Your task to perform on an android device: Search for Mexican restaurants on Maps Image 0: 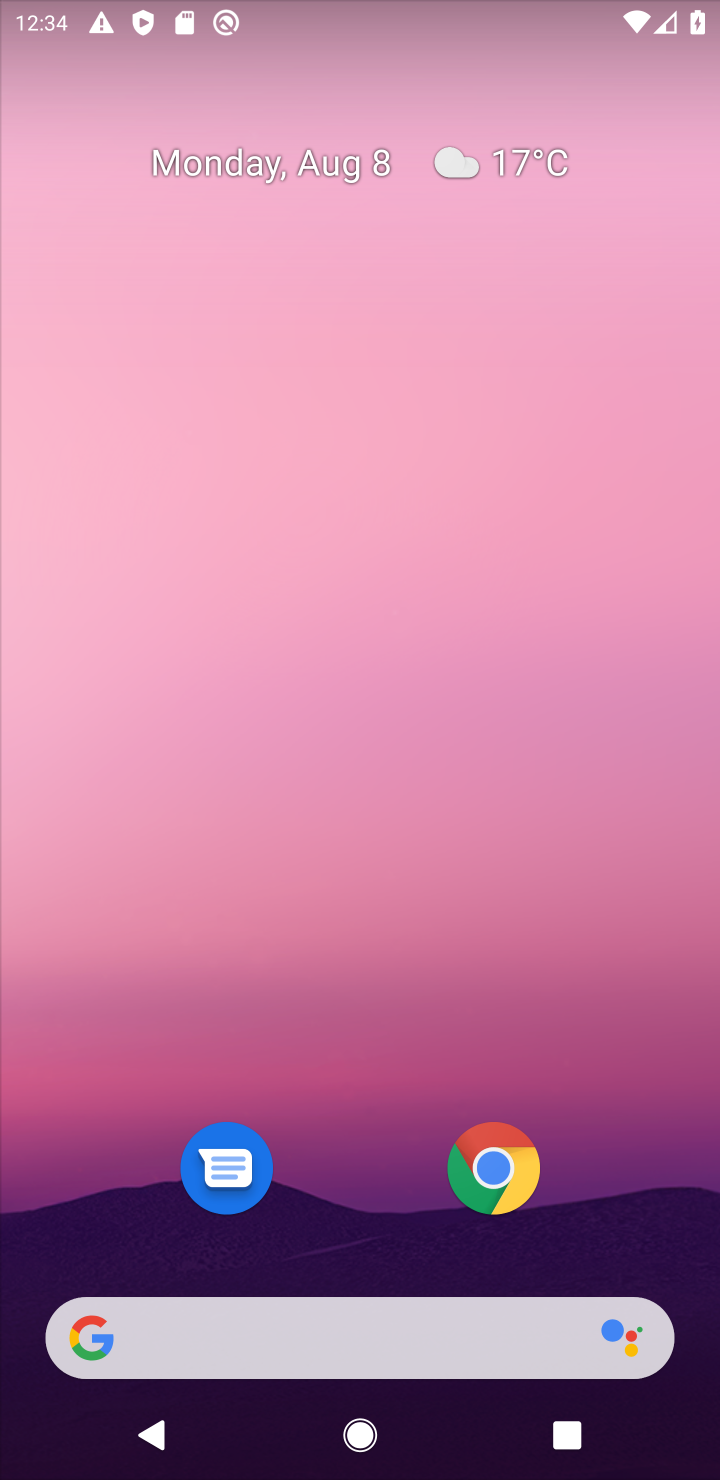
Step 0: drag from (53, 1441) to (503, 274)
Your task to perform on an android device: Search for Mexican restaurants on Maps Image 1: 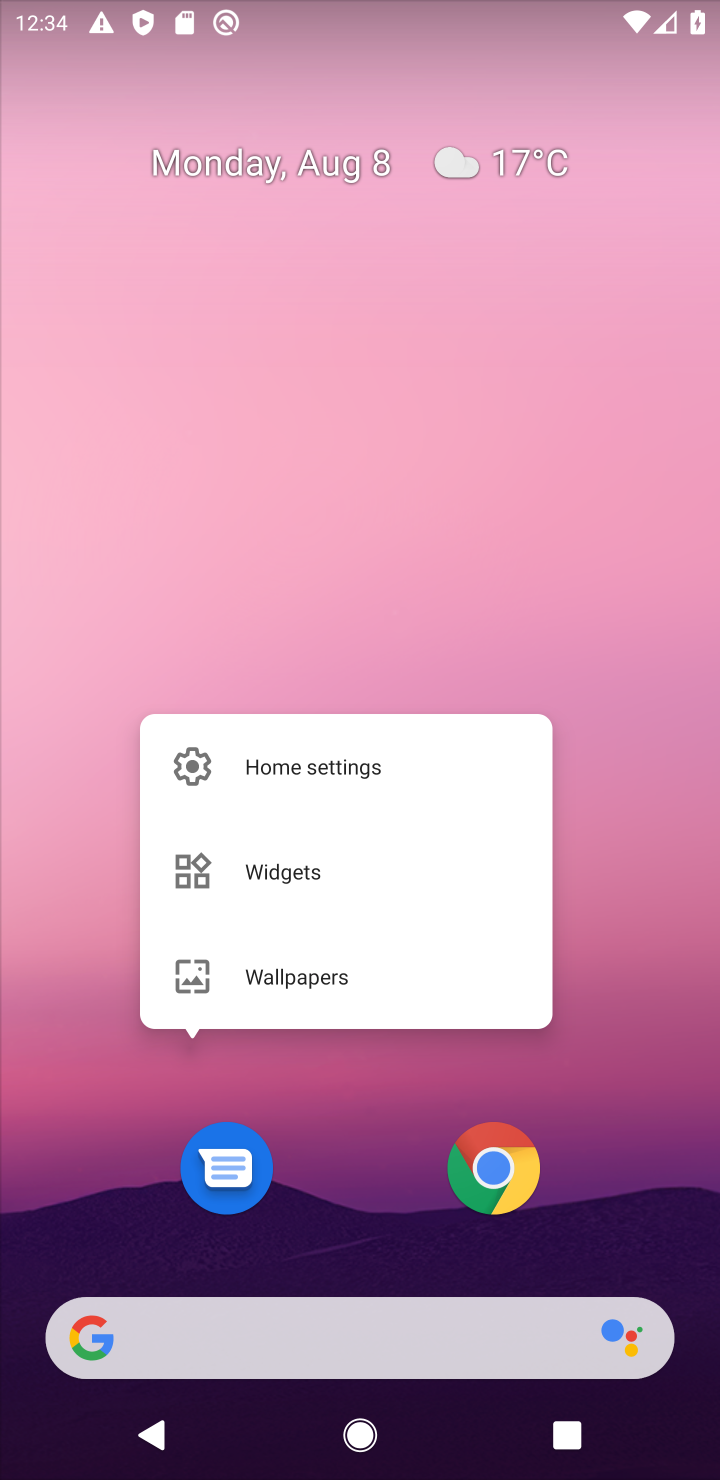
Step 1: click (70, 1443)
Your task to perform on an android device: Search for Mexican restaurants on Maps Image 2: 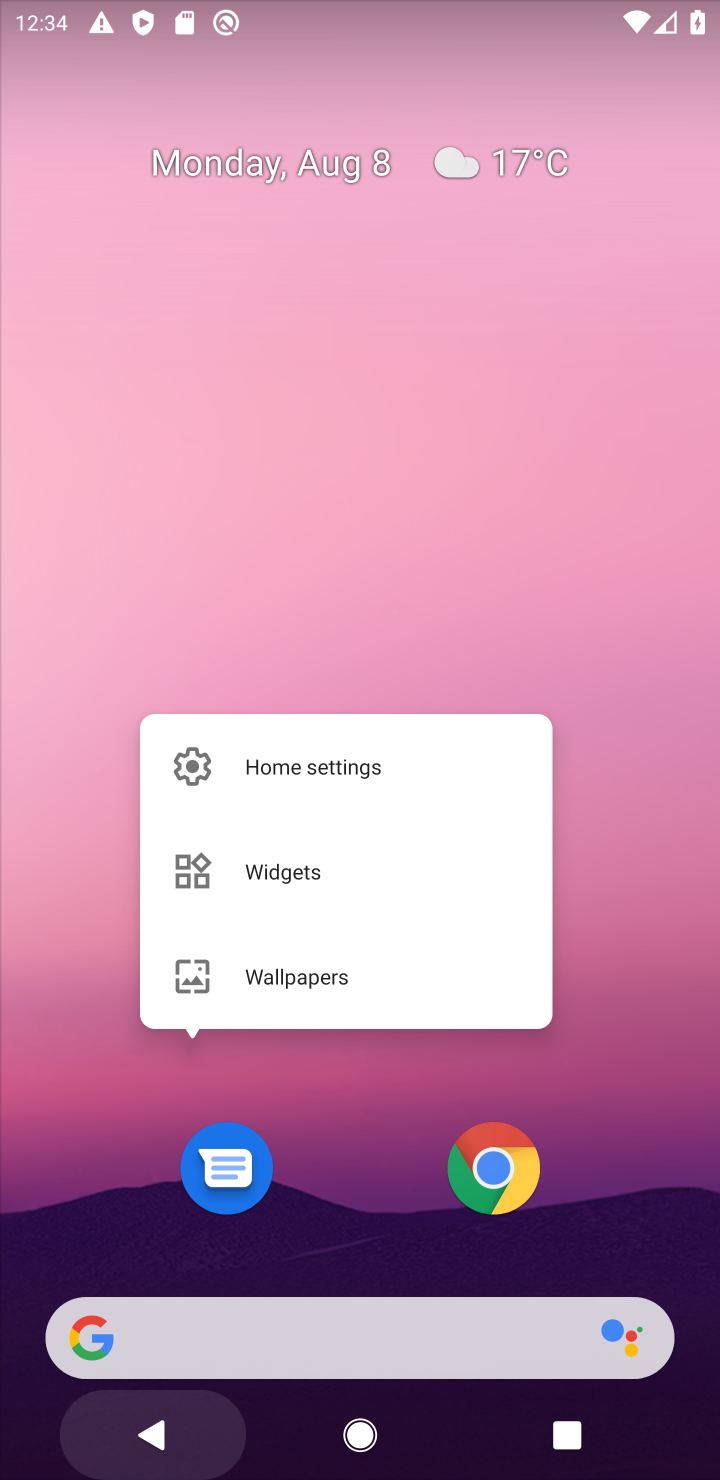
Step 2: drag from (70, 1443) to (120, 405)
Your task to perform on an android device: Search for Mexican restaurants on Maps Image 3: 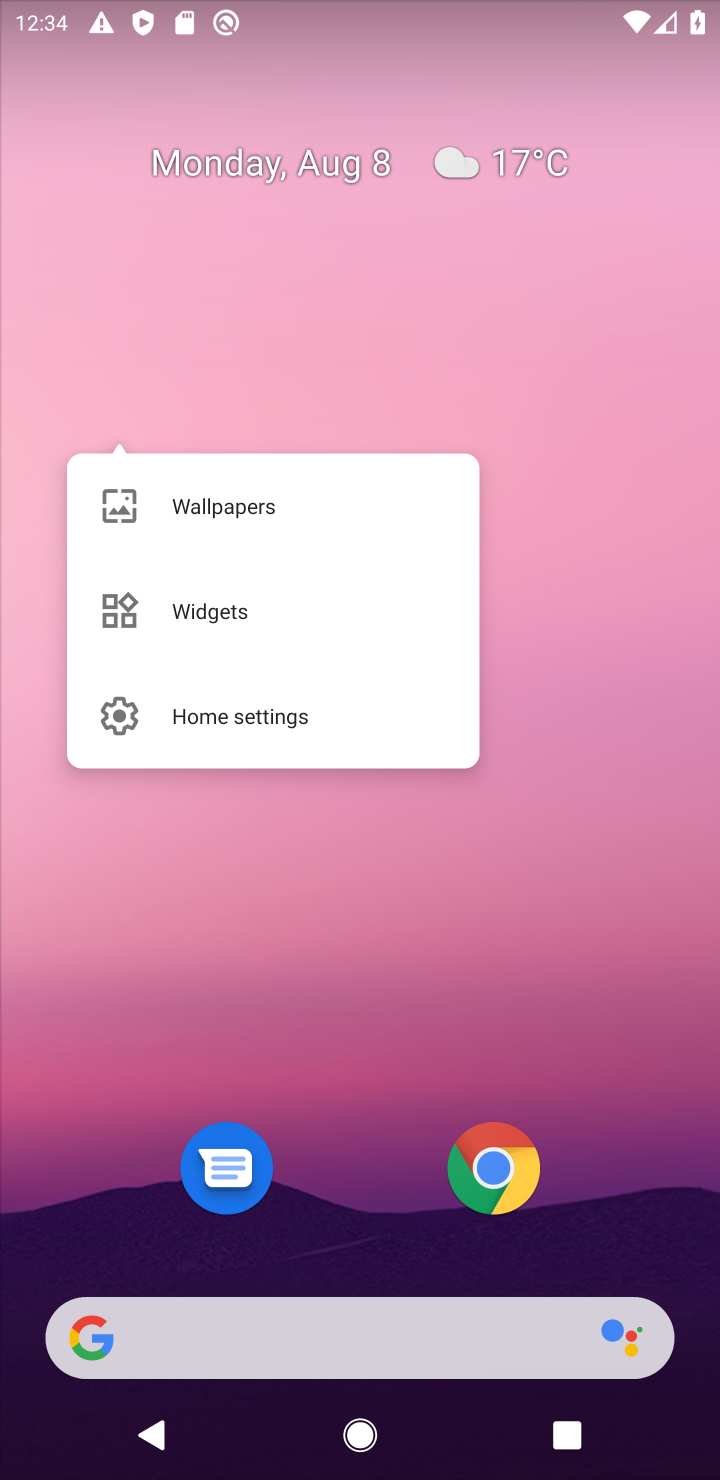
Step 3: click (62, 1438)
Your task to perform on an android device: Search for Mexican restaurants on Maps Image 4: 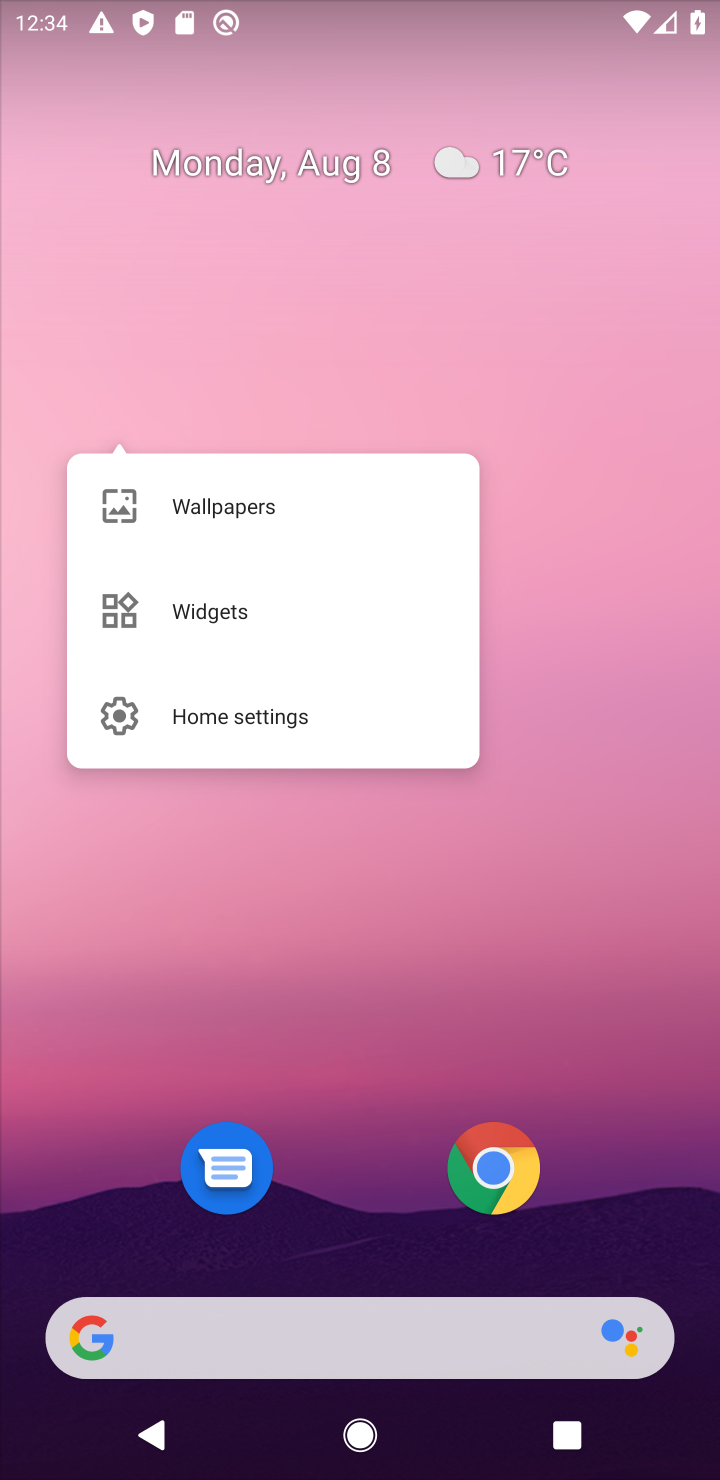
Step 4: task complete